Your task to perform on an android device: toggle translation in the chrome app Image 0: 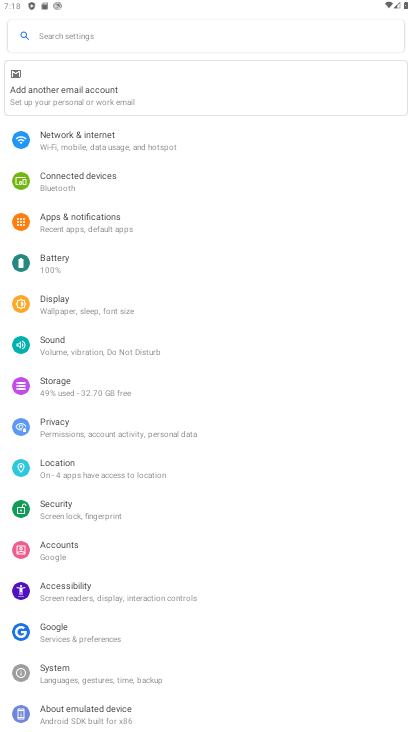
Step 0: press home button
Your task to perform on an android device: toggle translation in the chrome app Image 1: 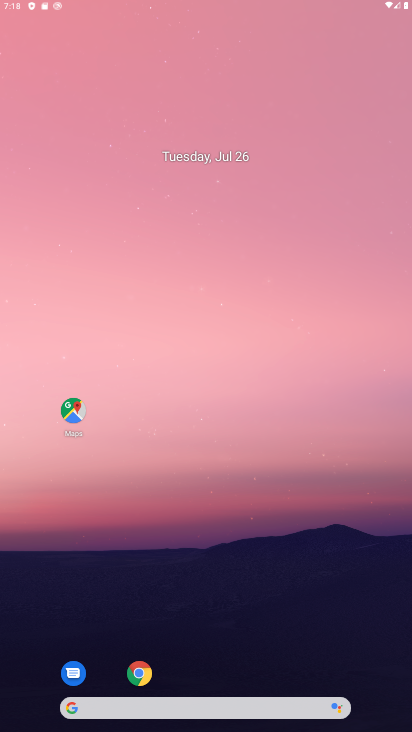
Step 1: drag from (406, 660) to (229, 17)
Your task to perform on an android device: toggle translation in the chrome app Image 2: 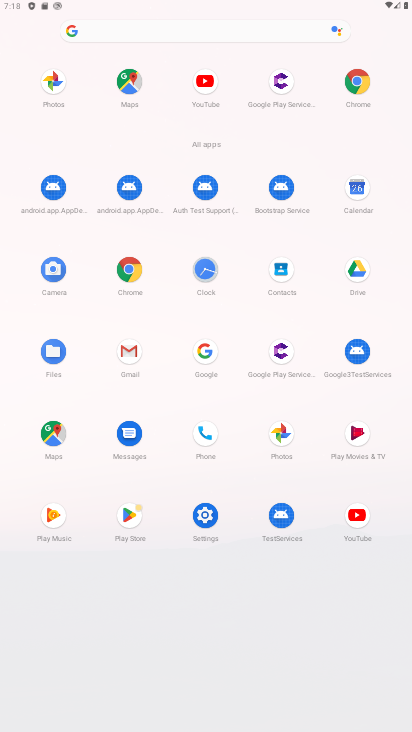
Step 2: click (124, 269)
Your task to perform on an android device: toggle translation in the chrome app Image 3: 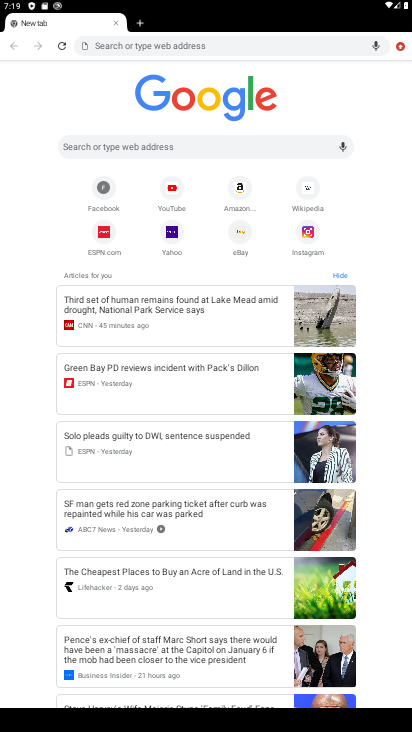
Step 3: click (401, 42)
Your task to perform on an android device: toggle translation in the chrome app Image 4: 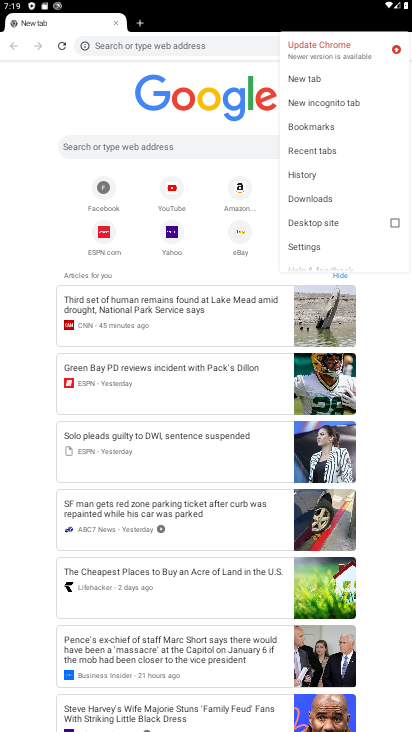
Step 4: click (317, 249)
Your task to perform on an android device: toggle translation in the chrome app Image 5: 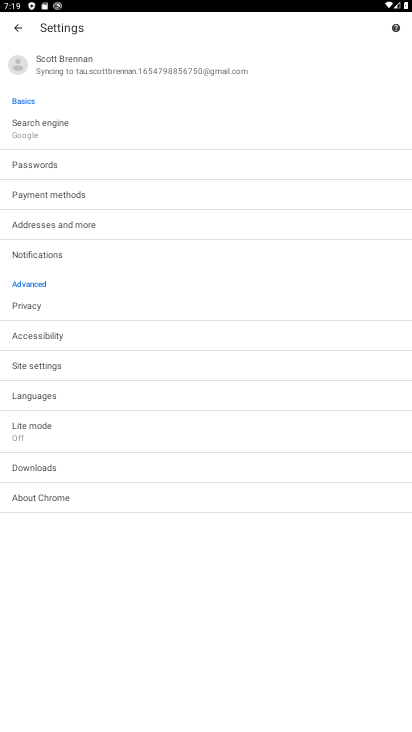
Step 5: click (42, 401)
Your task to perform on an android device: toggle translation in the chrome app Image 6: 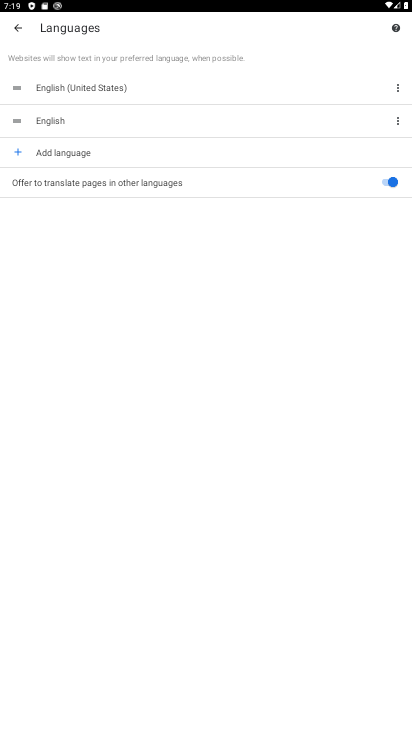
Step 6: click (320, 180)
Your task to perform on an android device: toggle translation in the chrome app Image 7: 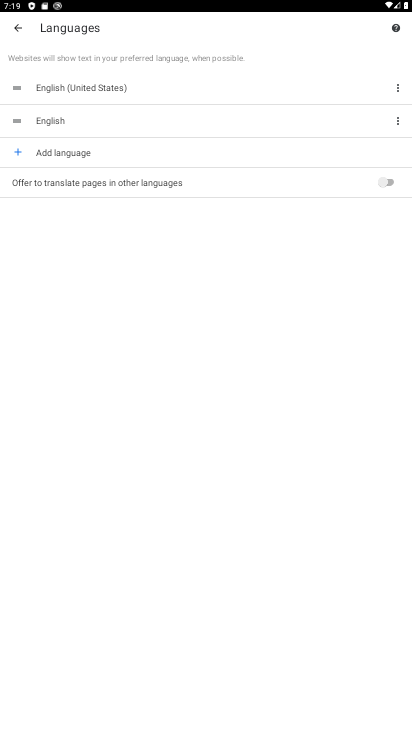
Step 7: task complete